Your task to perform on an android device: Open the stopwatch Image 0: 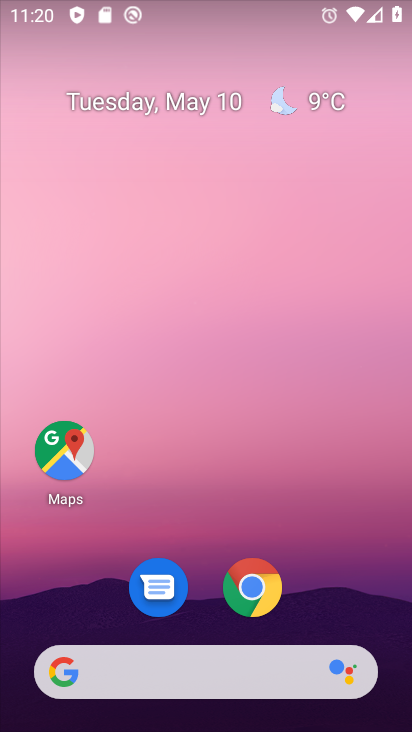
Step 0: drag from (355, 588) to (385, 12)
Your task to perform on an android device: Open the stopwatch Image 1: 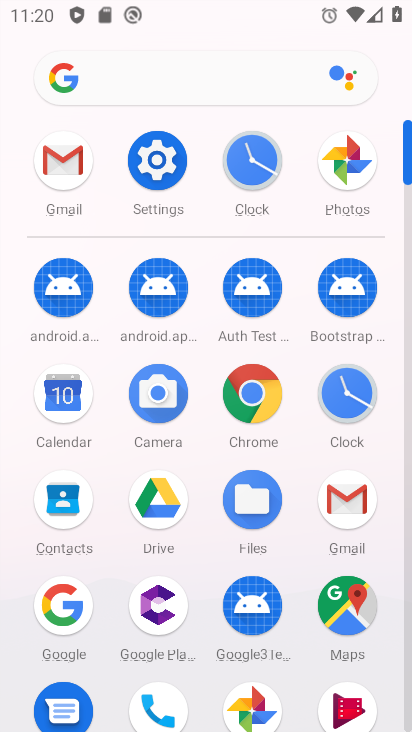
Step 1: click (245, 165)
Your task to perform on an android device: Open the stopwatch Image 2: 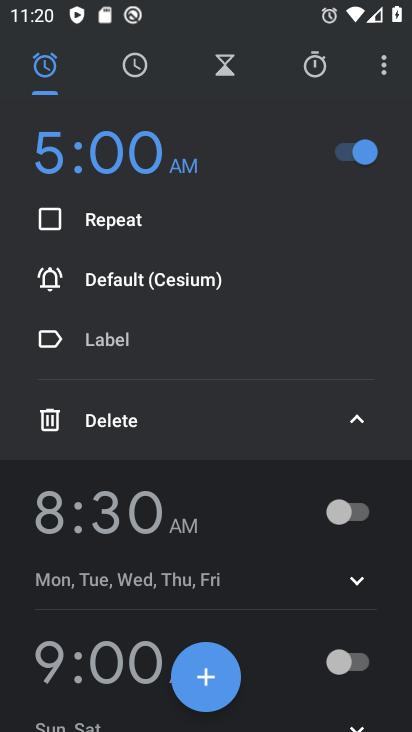
Step 2: click (321, 70)
Your task to perform on an android device: Open the stopwatch Image 3: 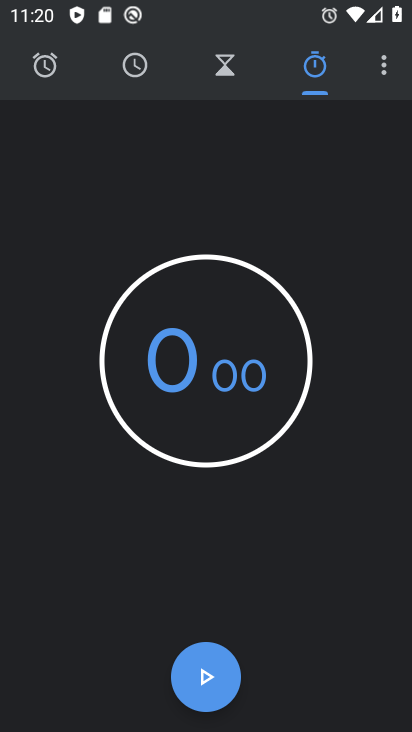
Step 3: task complete